Your task to perform on an android device: What's the news in Thailand? Image 0: 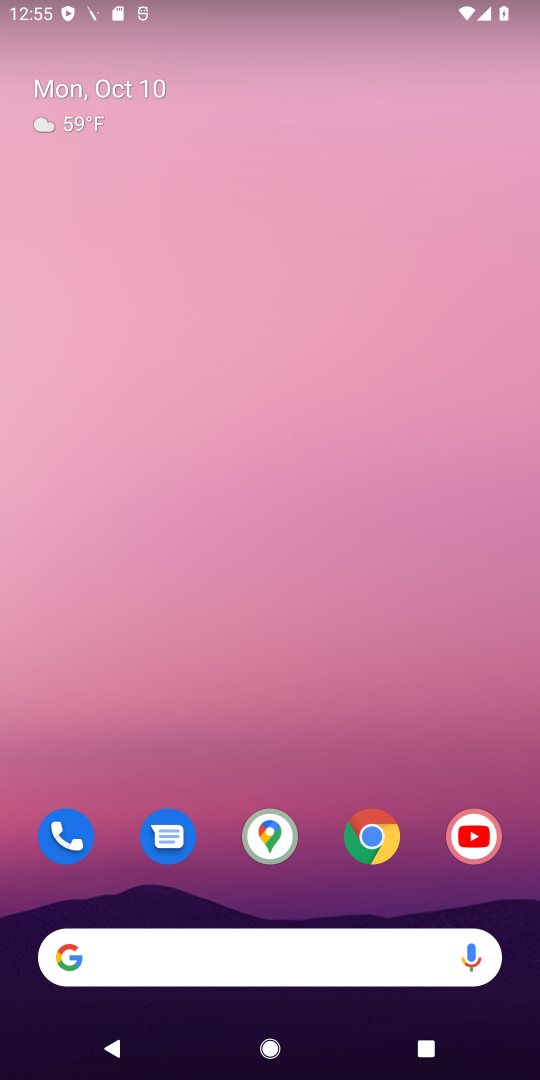
Step 0: click (385, 814)
Your task to perform on an android device: What's the news in Thailand? Image 1: 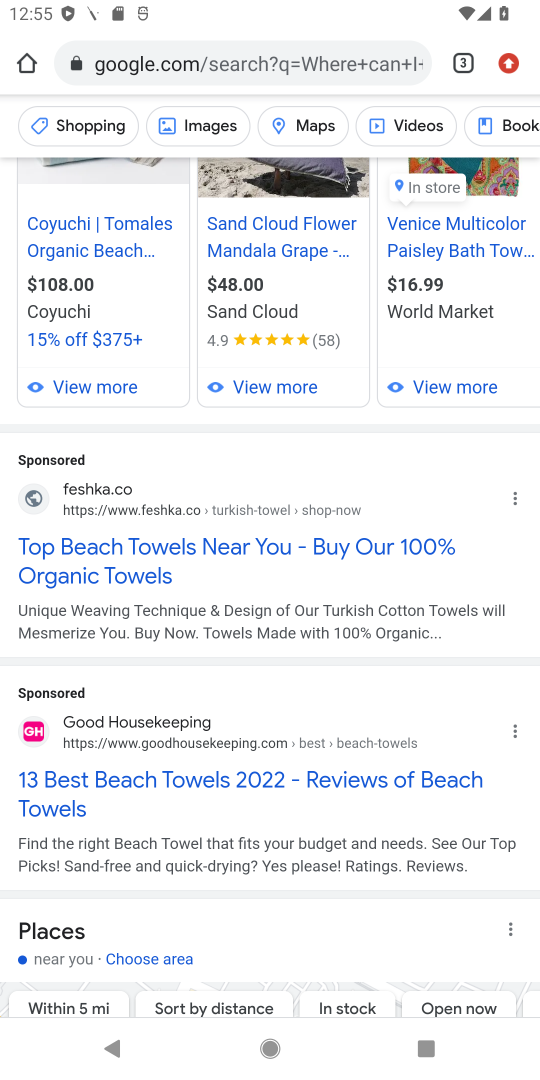
Step 1: click (276, 64)
Your task to perform on an android device: What's the news in Thailand? Image 2: 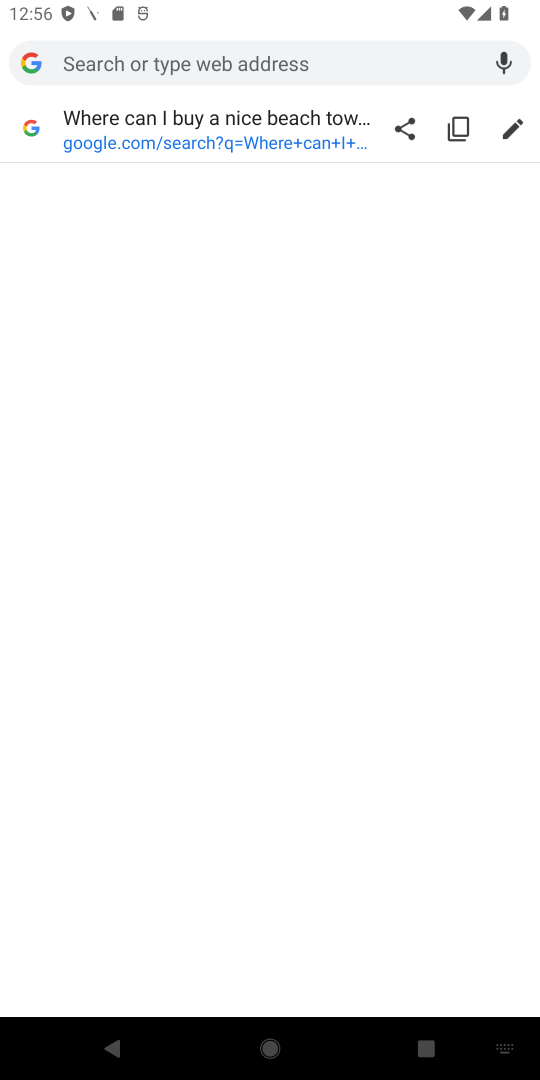
Step 2: click (276, 64)
Your task to perform on an android device: What's the news in Thailand? Image 3: 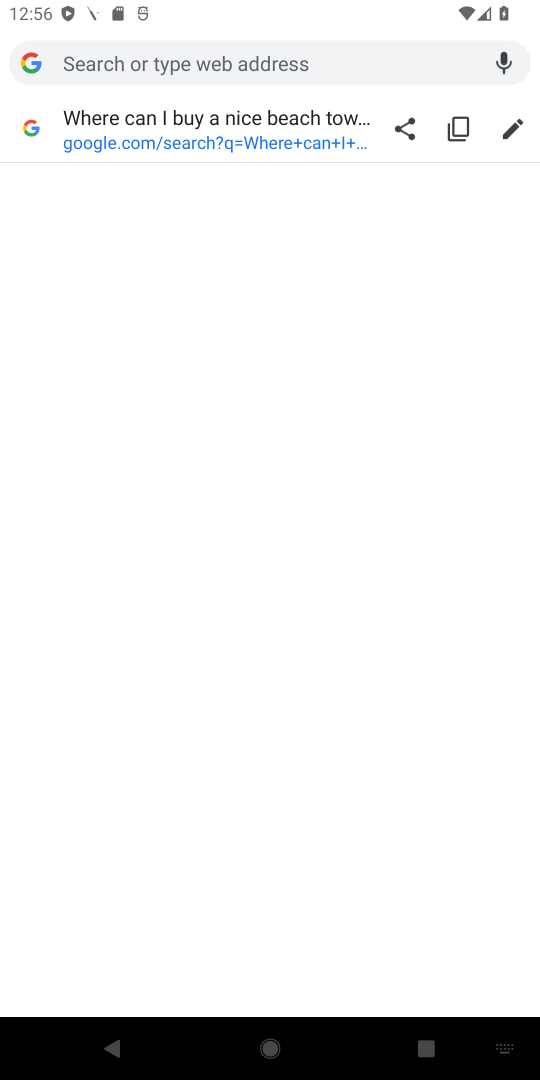
Step 3: type "Thailand"
Your task to perform on an android device: What's the news in Thailand? Image 4: 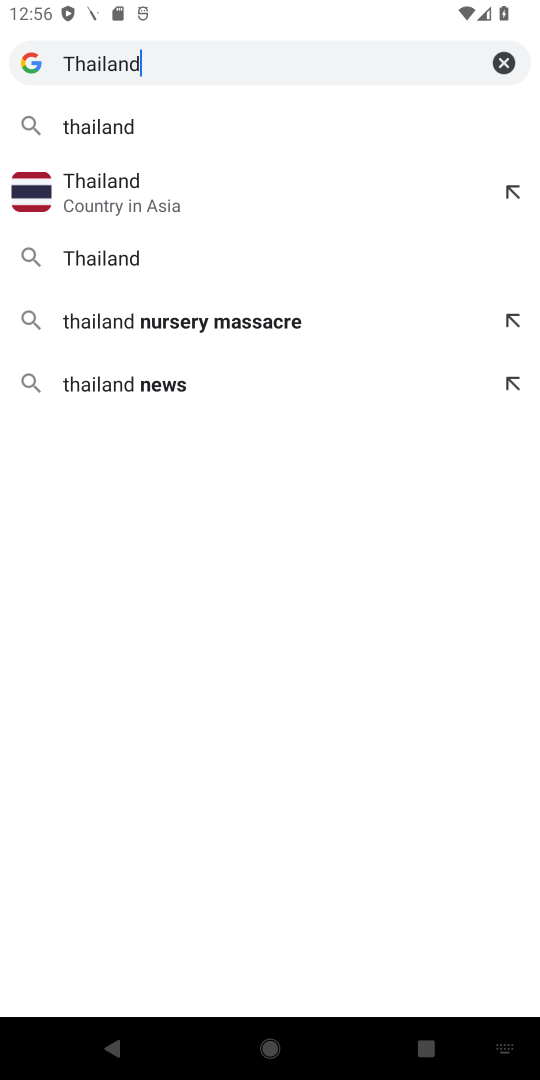
Step 4: click (110, 127)
Your task to perform on an android device: What's the news in Thailand? Image 5: 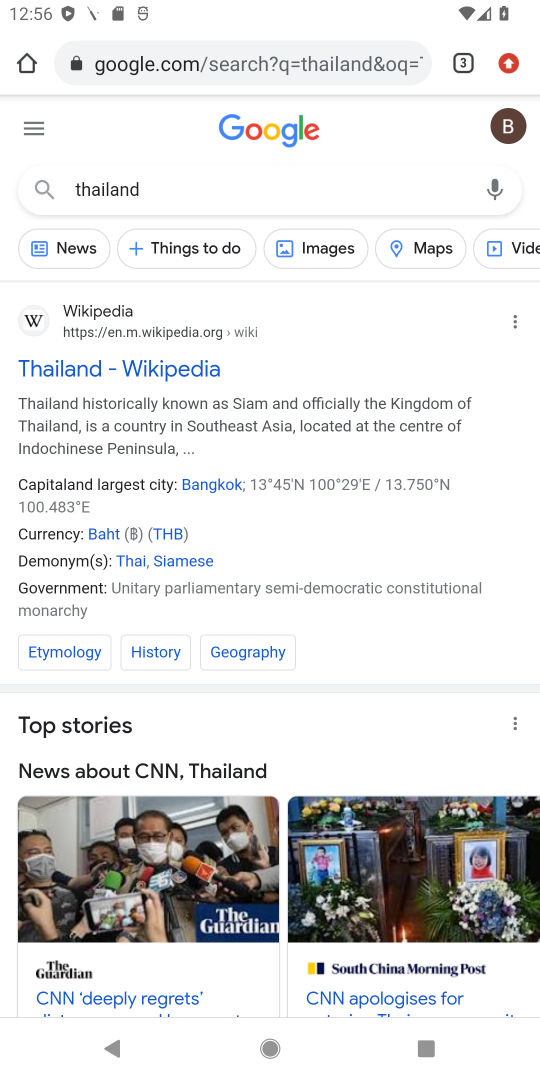
Step 5: click (66, 256)
Your task to perform on an android device: What's the news in Thailand? Image 6: 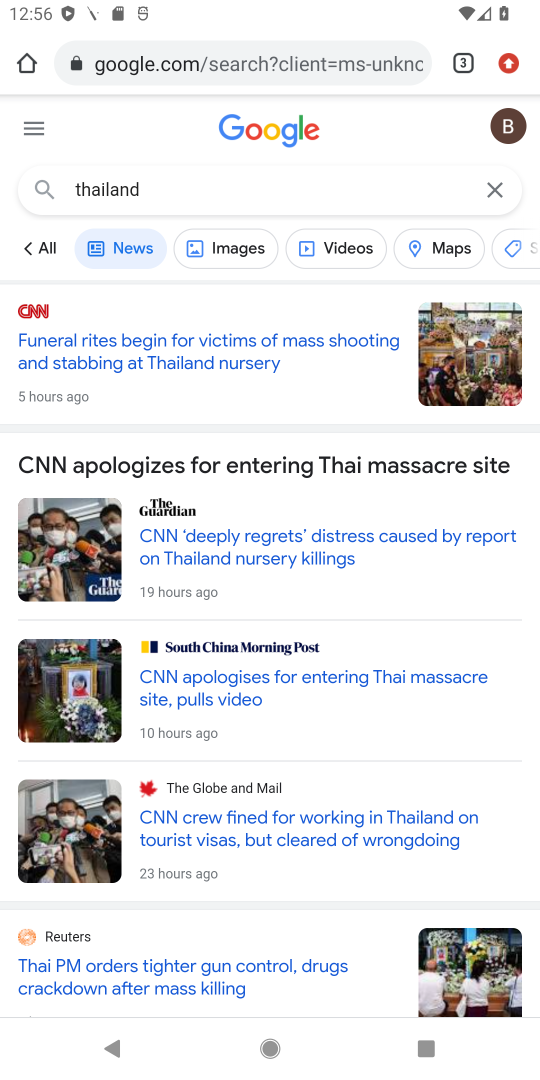
Step 6: task complete